Your task to perform on an android device: turn off airplane mode Image 0: 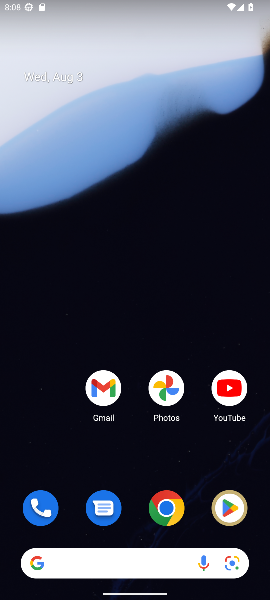
Step 0: drag from (146, 538) to (219, 39)
Your task to perform on an android device: turn off airplane mode Image 1: 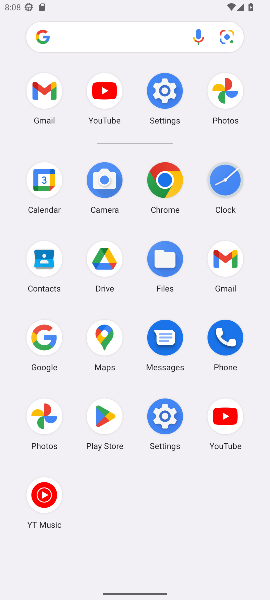
Step 1: click (156, 429)
Your task to perform on an android device: turn off airplane mode Image 2: 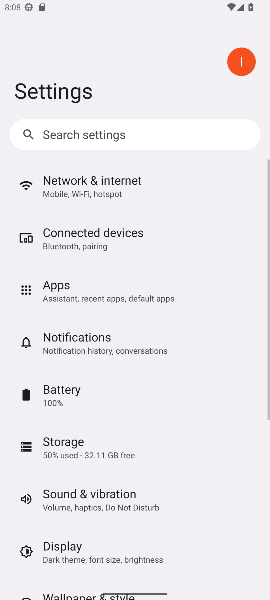
Step 2: click (79, 191)
Your task to perform on an android device: turn off airplane mode Image 3: 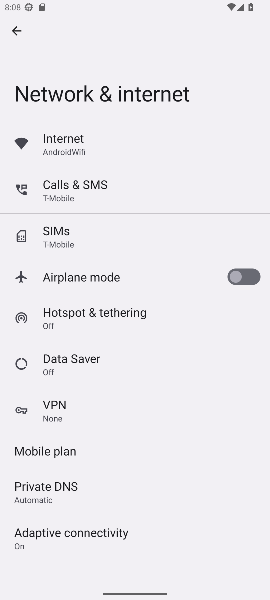
Step 3: task complete